Your task to perform on an android device: Go to sound settings Image 0: 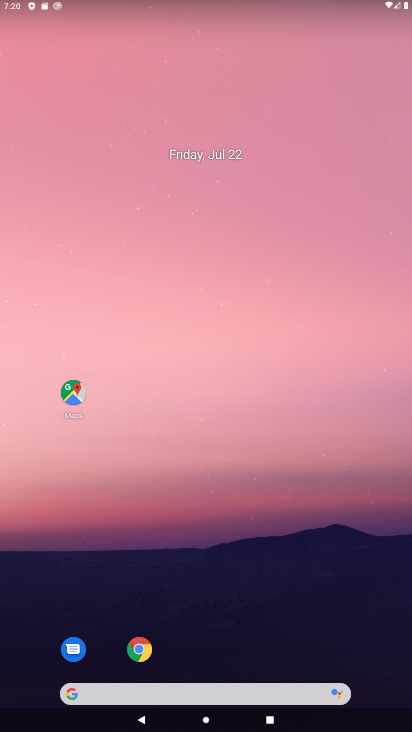
Step 0: click (381, 193)
Your task to perform on an android device: Go to sound settings Image 1: 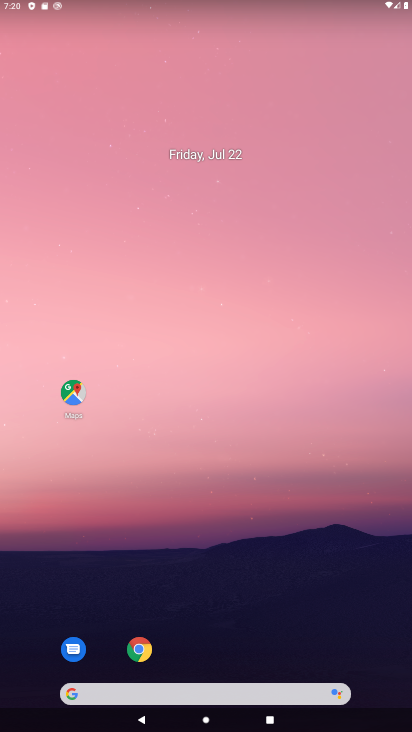
Step 1: drag from (323, 423) to (373, 37)
Your task to perform on an android device: Go to sound settings Image 2: 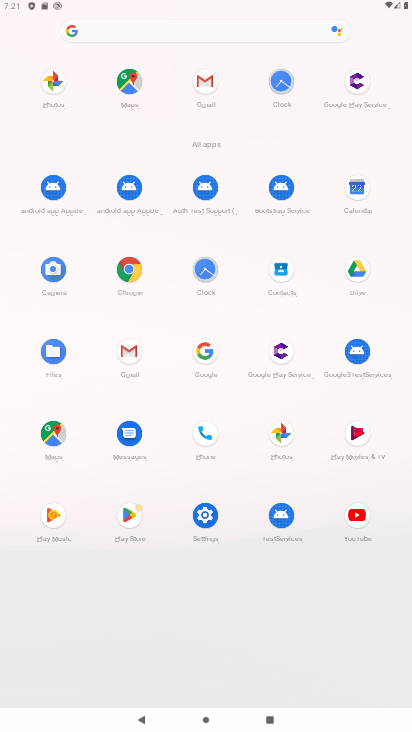
Step 2: click (205, 520)
Your task to perform on an android device: Go to sound settings Image 3: 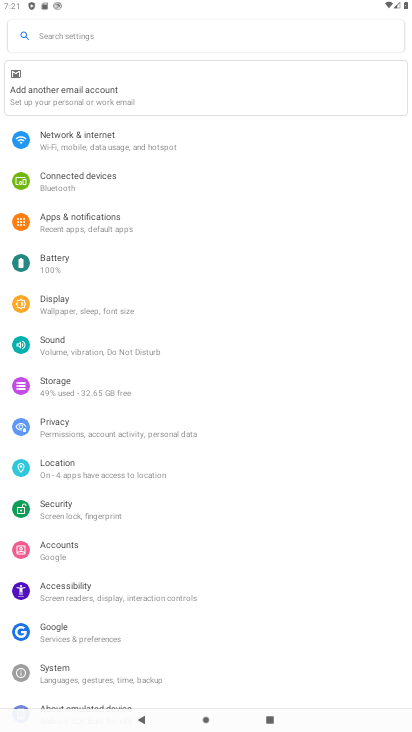
Step 3: click (97, 352)
Your task to perform on an android device: Go to sound settings Image 4: 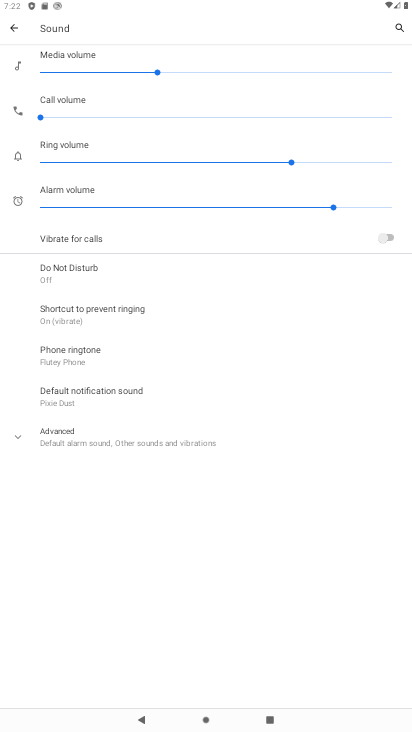
Step 4: task complete